Your task to perform on an android device: move an email to a new category in the gmail app Image 0: 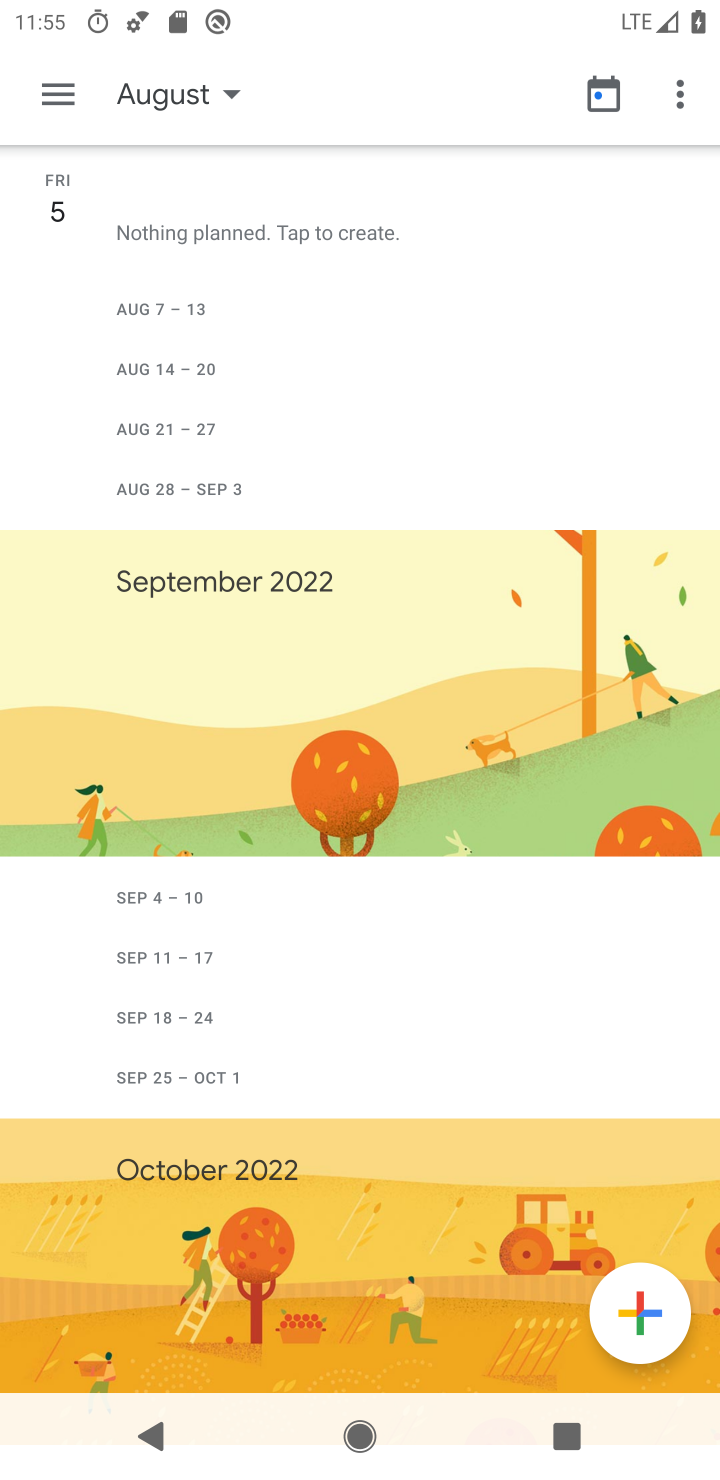
Step 0: press home button
Your task to perform on an android device: move an email to a new category in the gmail app Image 1: 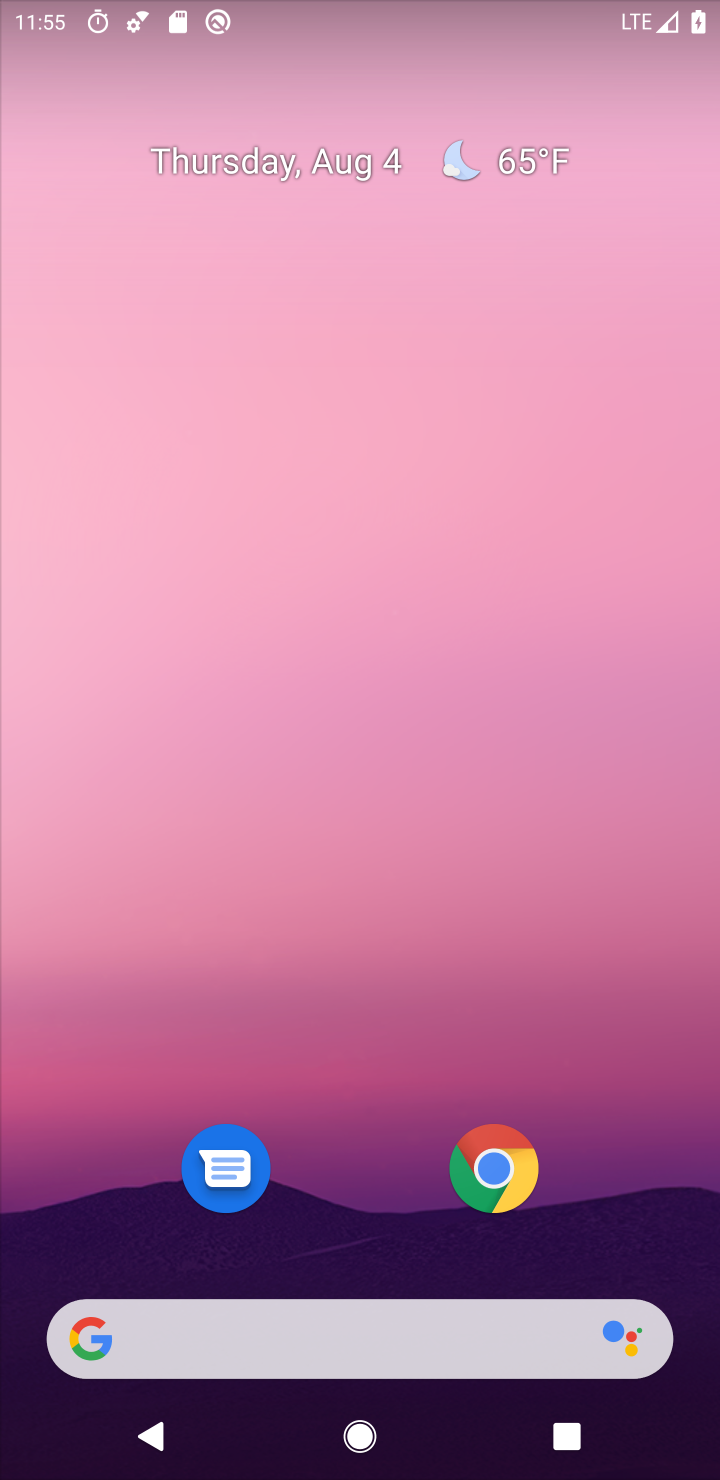
Step 1: drag from (340, 1215) to (447, 1)
Your task to perform on an android device: move an email to a new category in the gmail app Image 2: 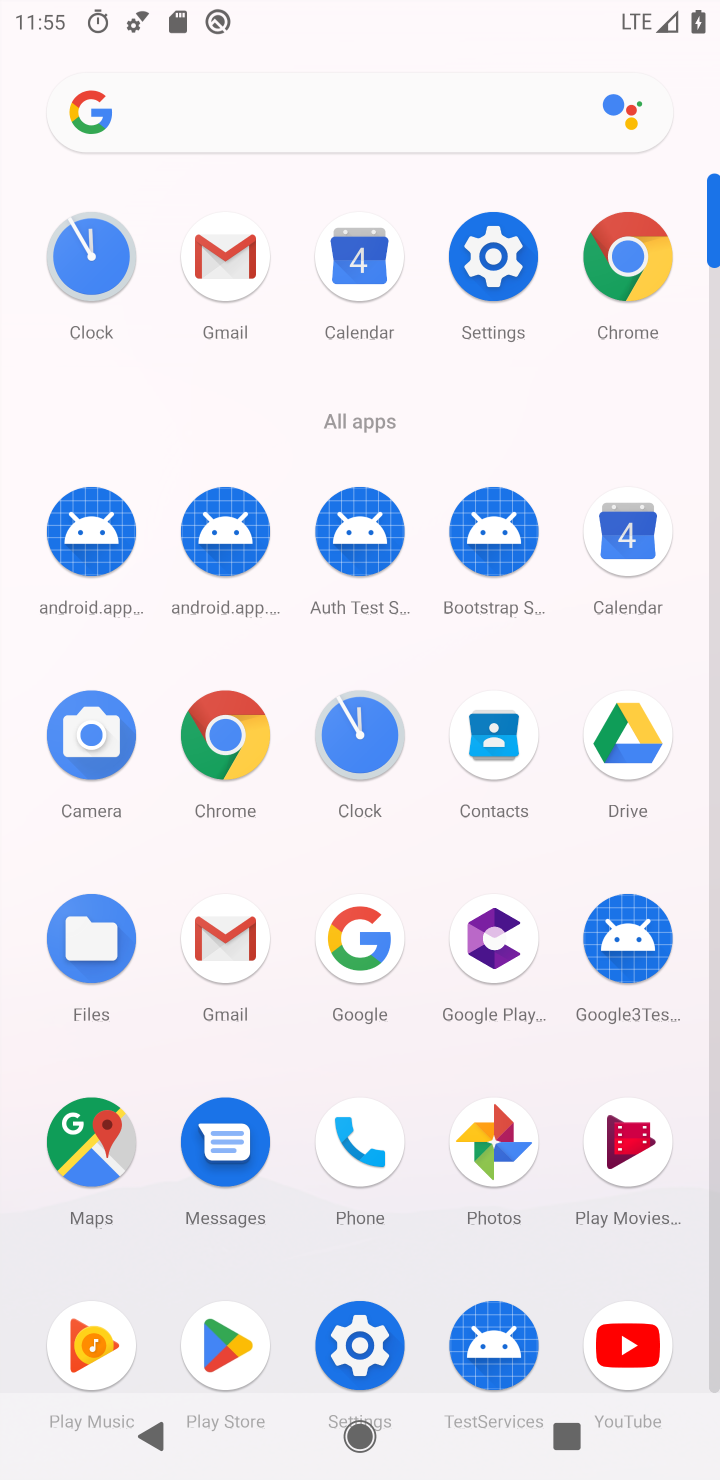
Step 2: click (235, 967)
Your task to perform on an android device: move an email to a new category in the gmail app Image 3: 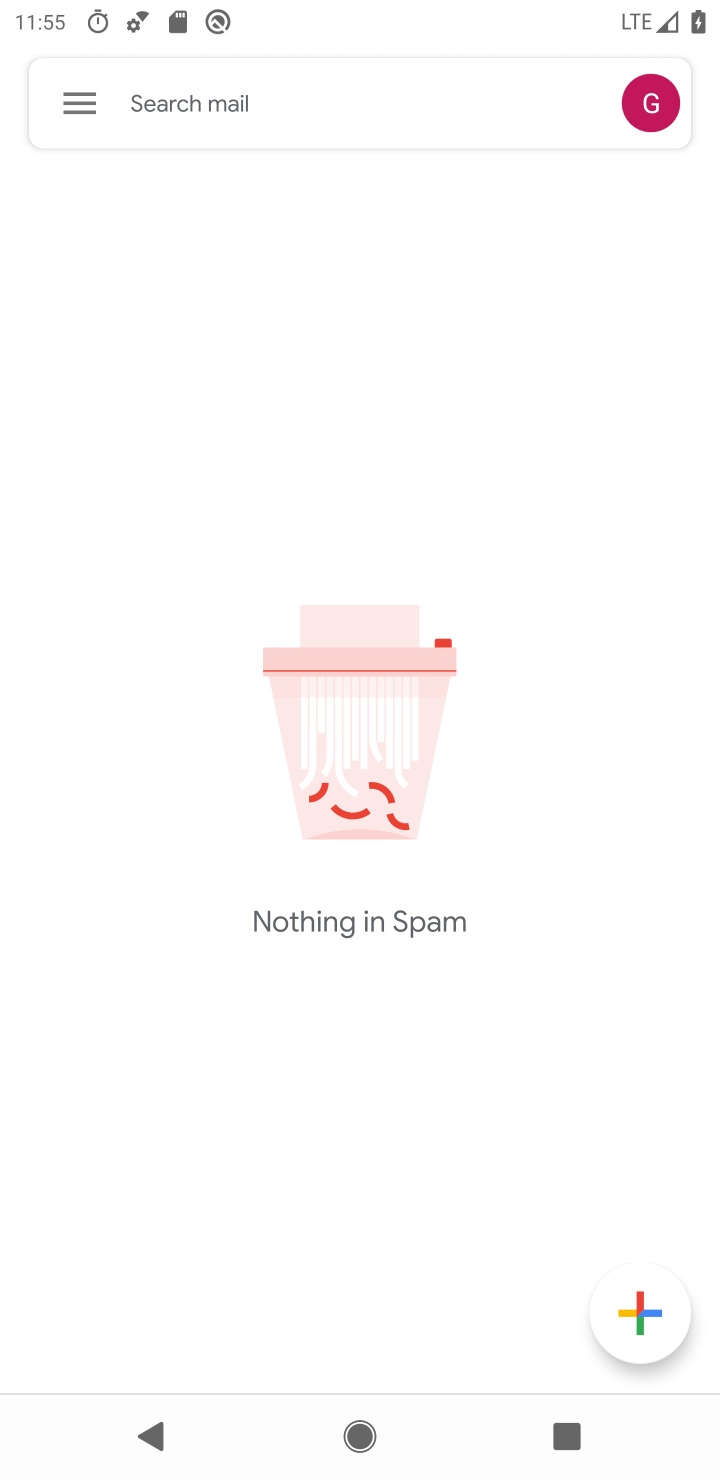
Step 3: click (65, 108)
Your task to perform on an android device: move an email to a new category in the gmail app Image 4: 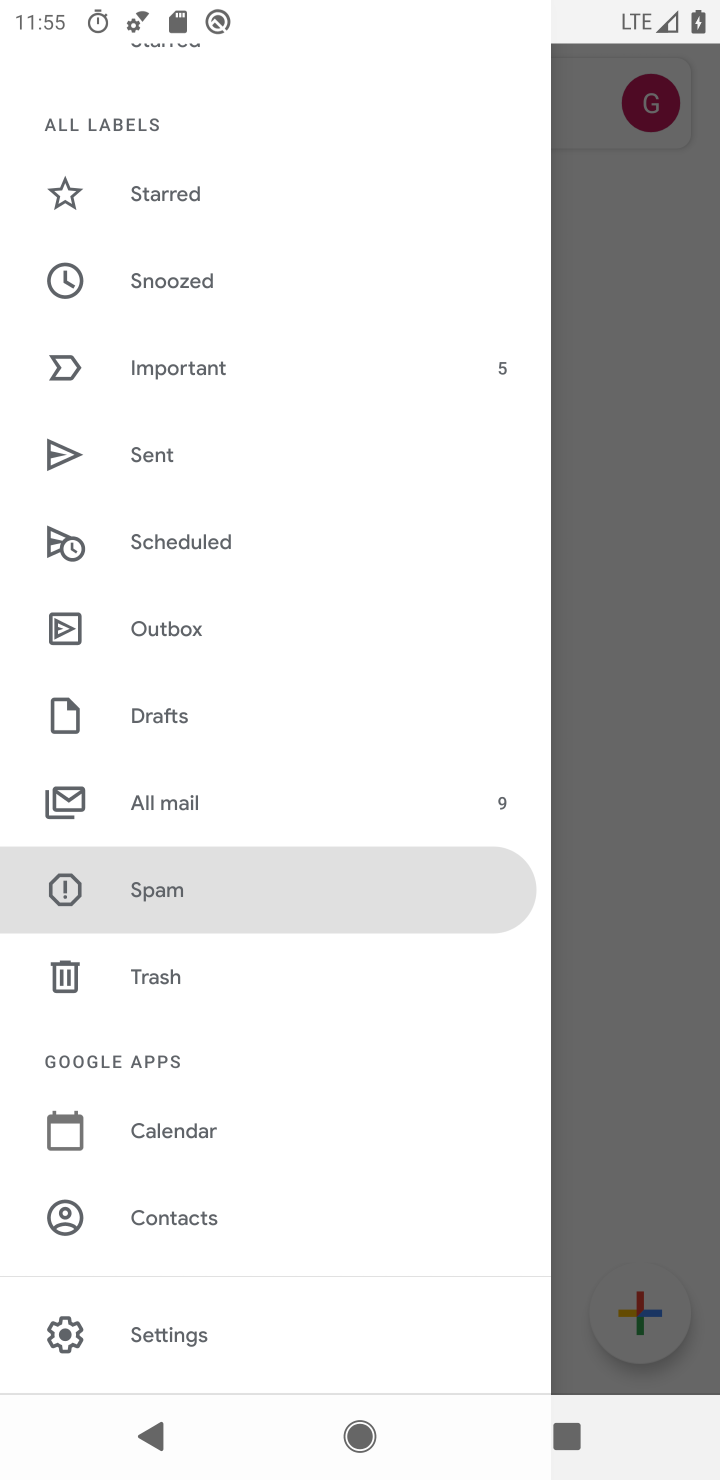
Step 4: drag from (252, 1089) to (404, 295)
Your task to perform on an android device: move an email to a new category in the gmail app Image 5: 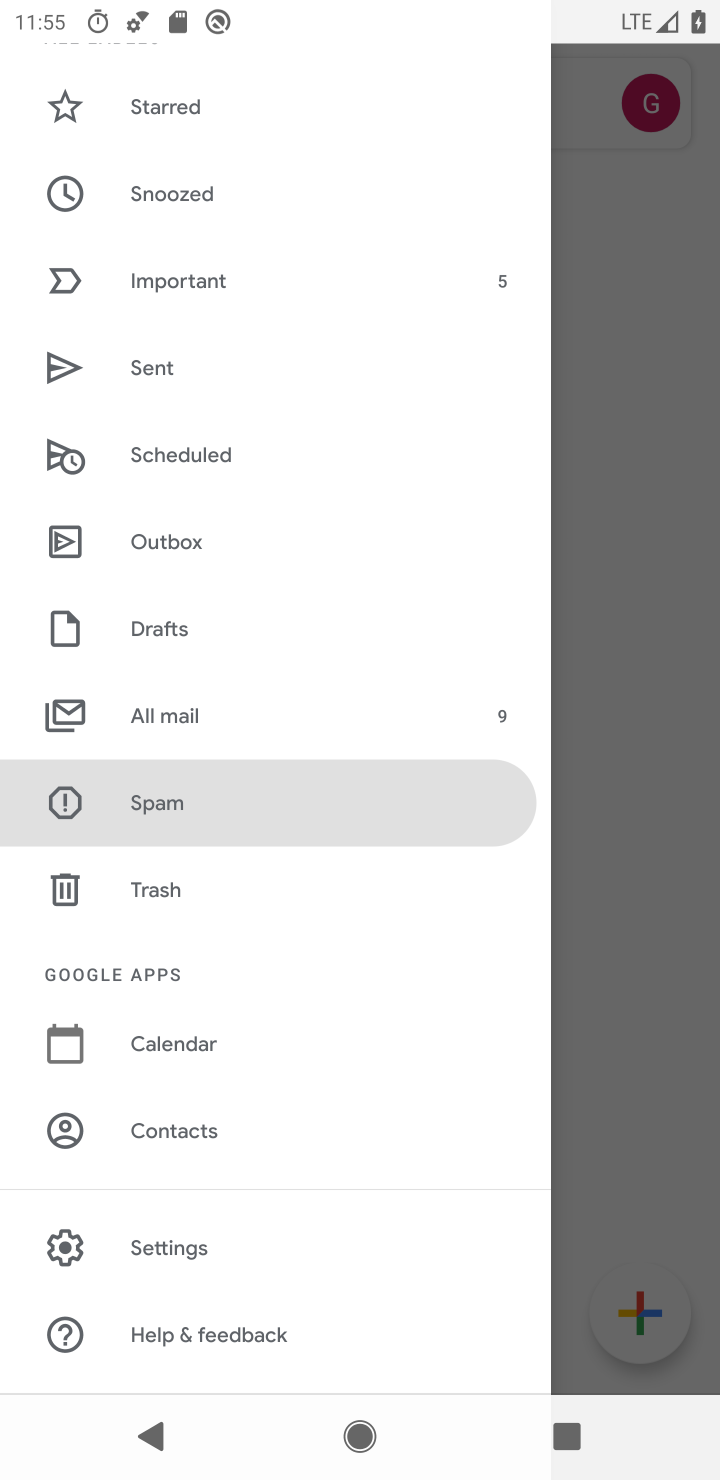
Step 5: drag from (178, 112) to (237, 1360)
Your task to perform on an android device: move an email to a new category in the gmail app Image 6: 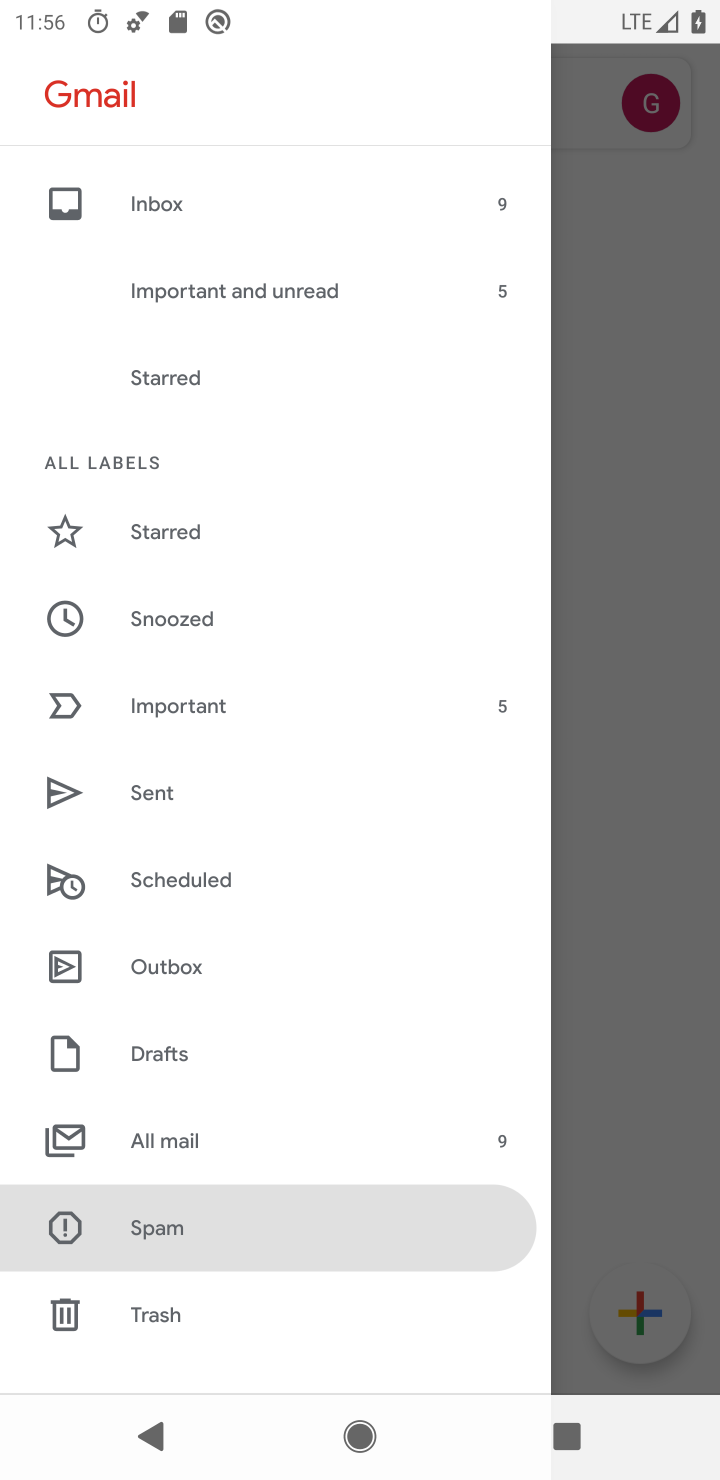
Step 6: click (193, 210)
Your task to perform on an android device: move an email to a new category in the gmail app Image 7: 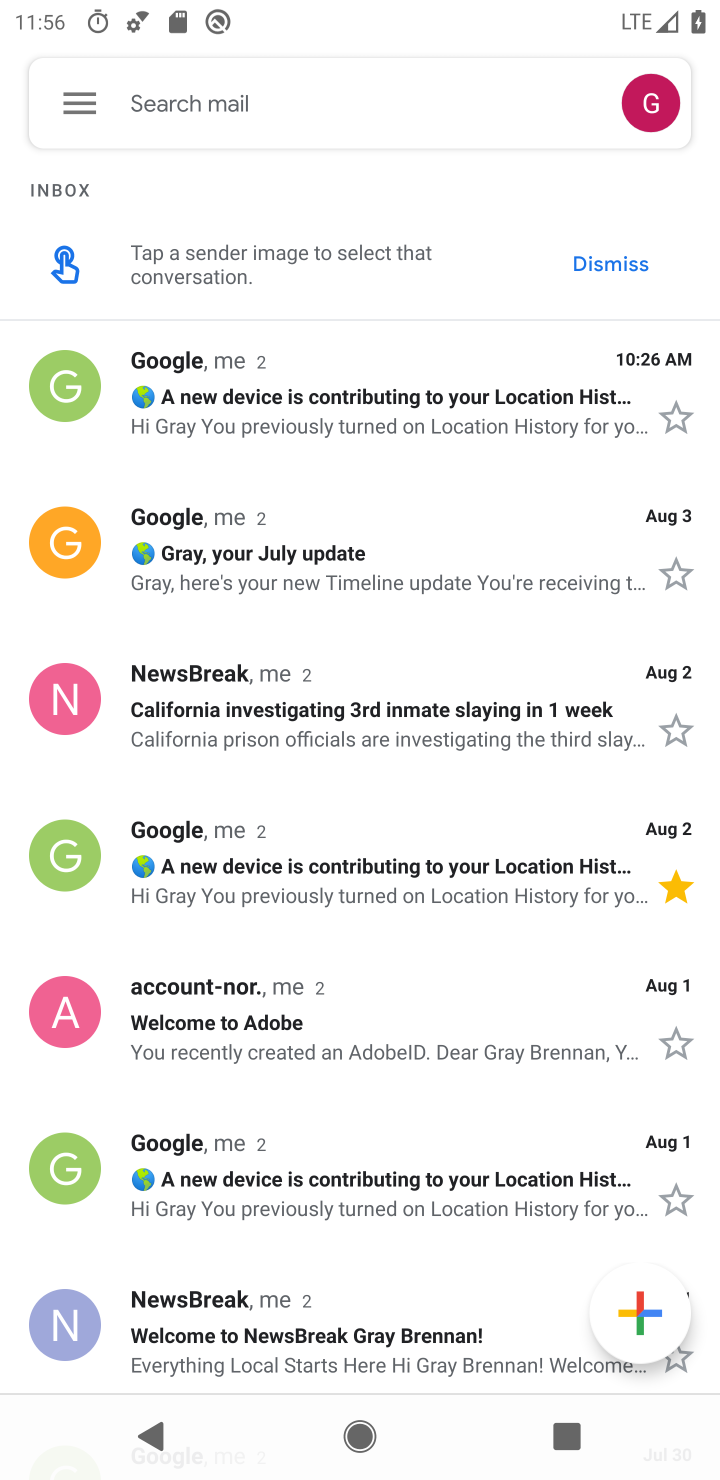
Step 7: click (71, 402)
Your task to perform on an android device: move an email to a new category in the gmail app Image 8: 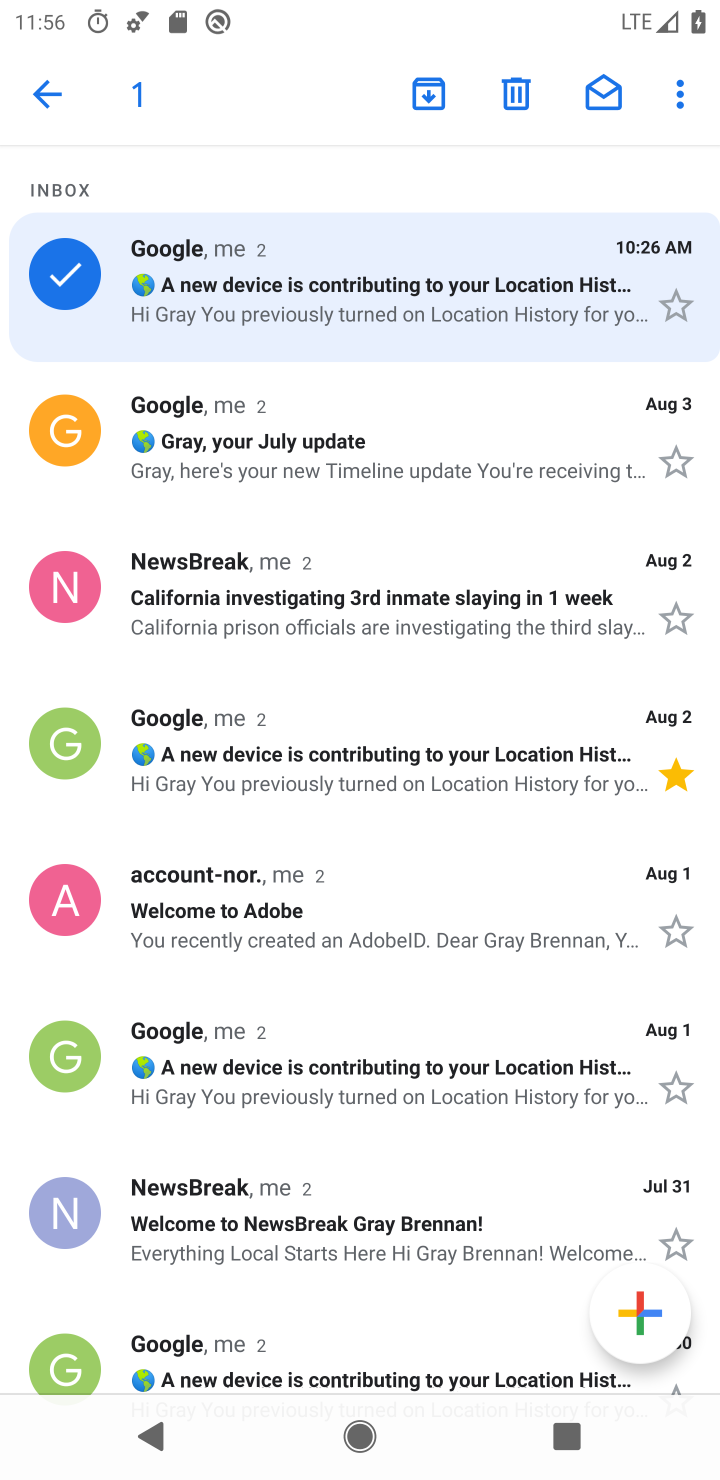
Step 8: click (670, 76)
Your task to perform on an android device: move an email to a new category in the gmail app Image 9: 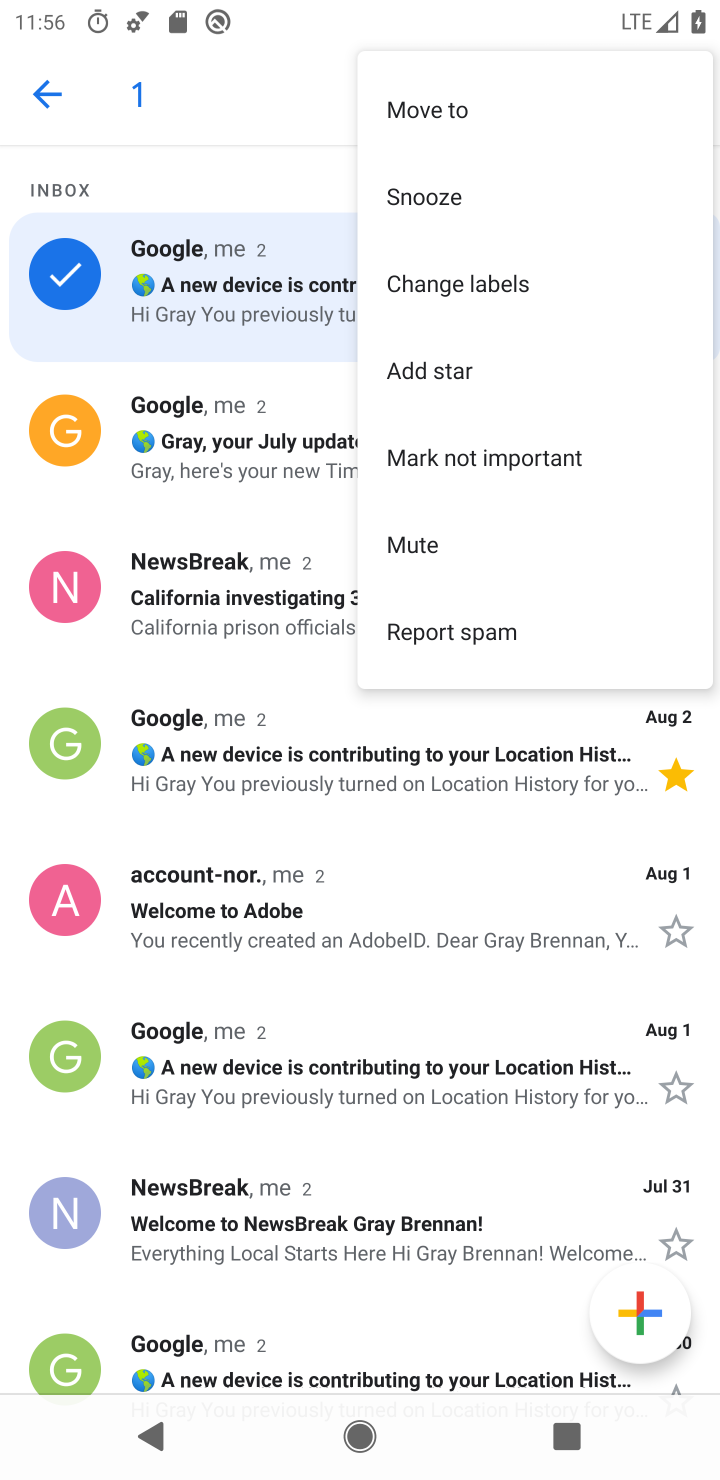
Step 9: click (449, 276)
Your task to perform on an android device: move an email to a new category in the gmail app Image 10: 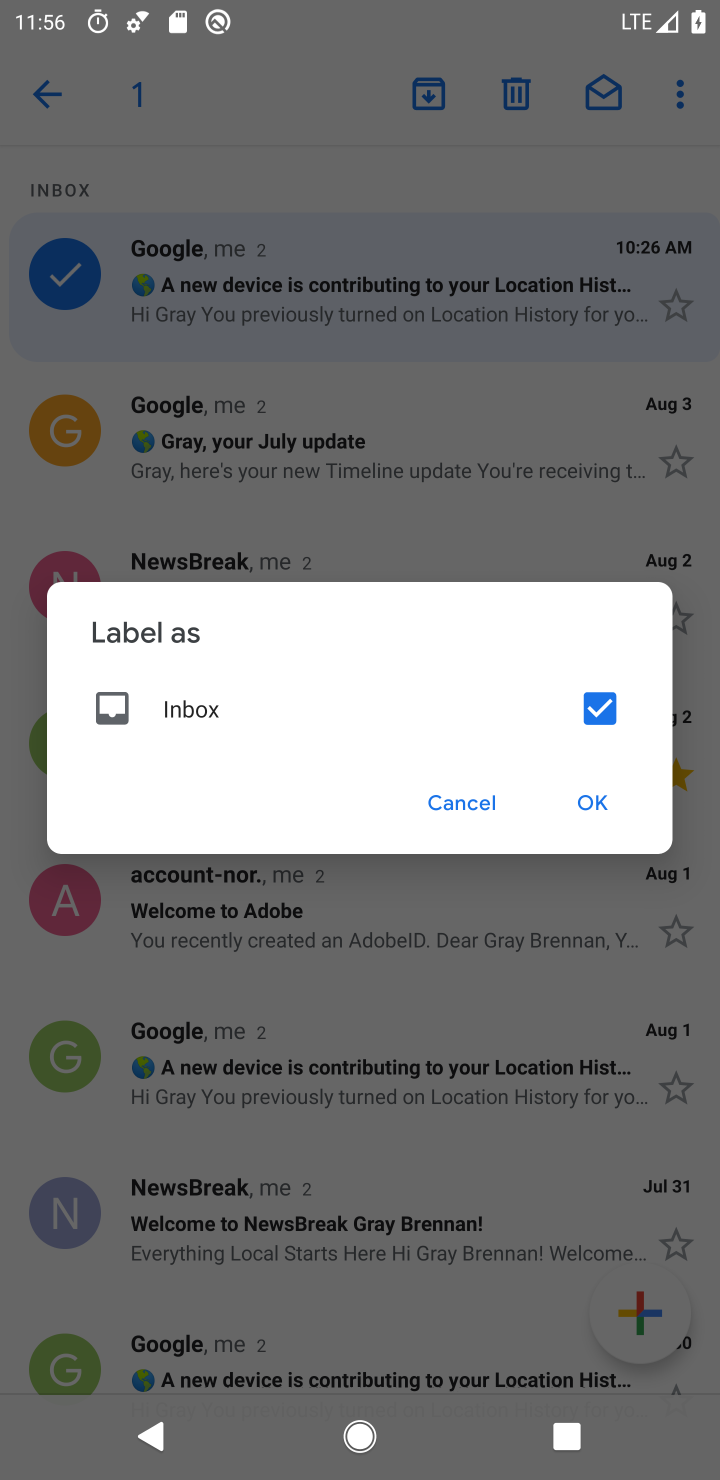
Step 10: click (577, 704)
Your task to perform on an android device: move an email to a new category in the gmail app Image 11: 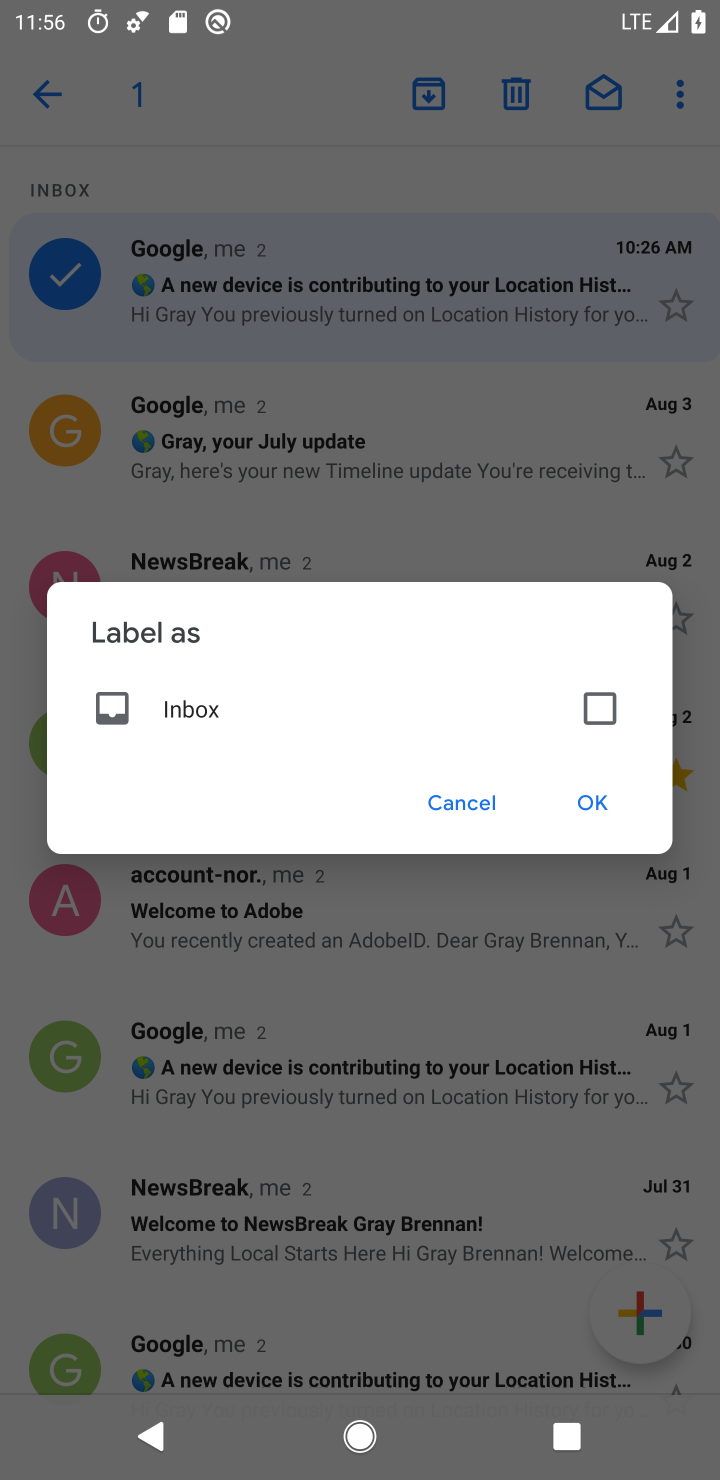
Step 11: click (581, 795)
Your task to perform on an android device: move an email to a new category in the gmail app Image 12: 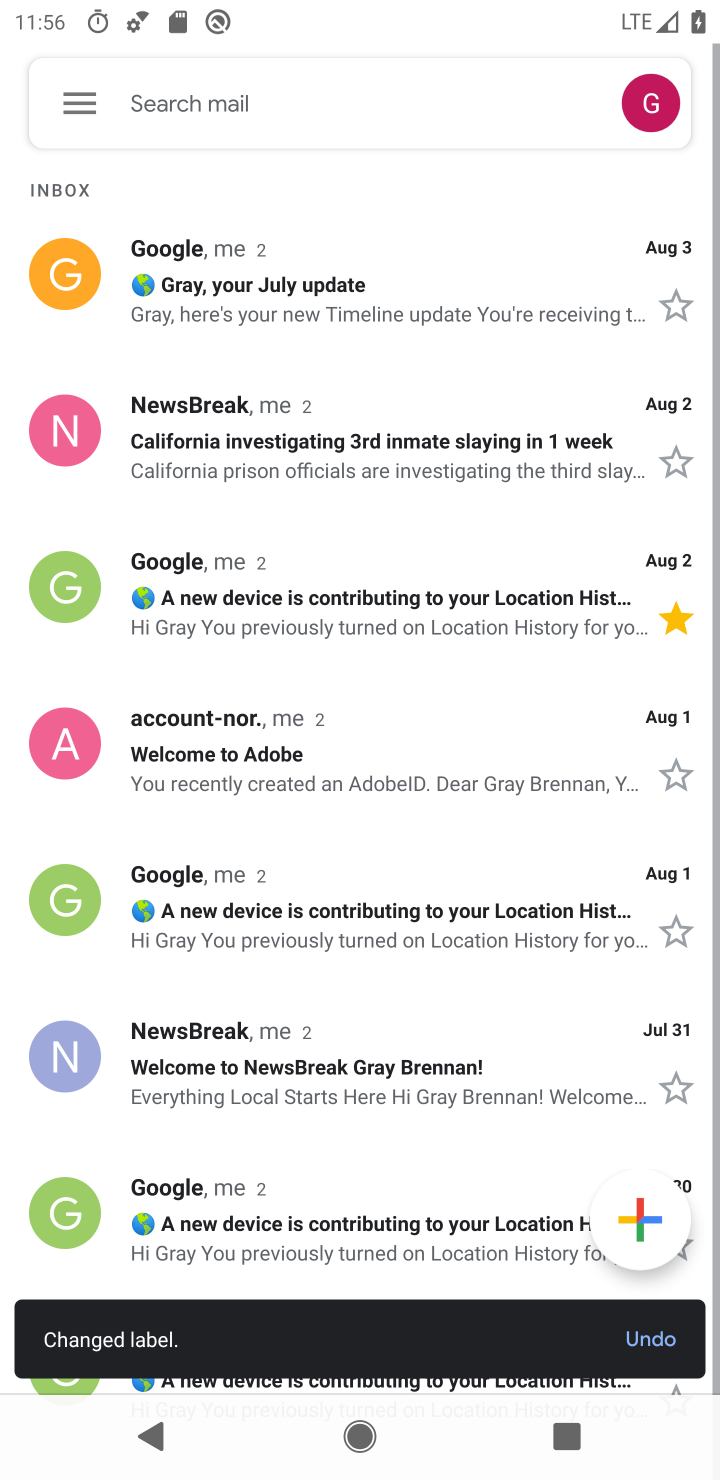
Step 12: task complete